Your task to perform on an android device: Open accessibility settings Image 0: 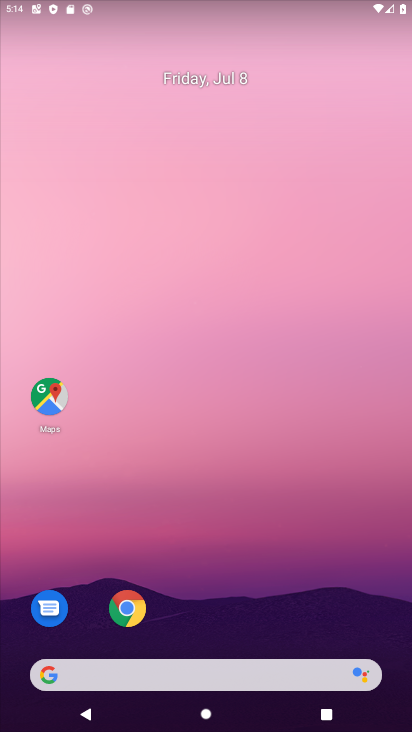
Step 0: drag from (192, 606) to (298, 46)
Your task to perform on an android device: Open accessibility settings Image 1: 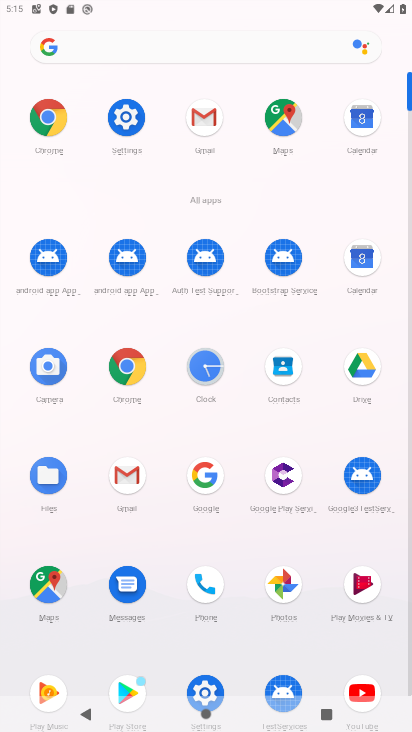
Step 1: click (133, 116)
Your task to perform on an android device: Open accessibility settings Image 2: 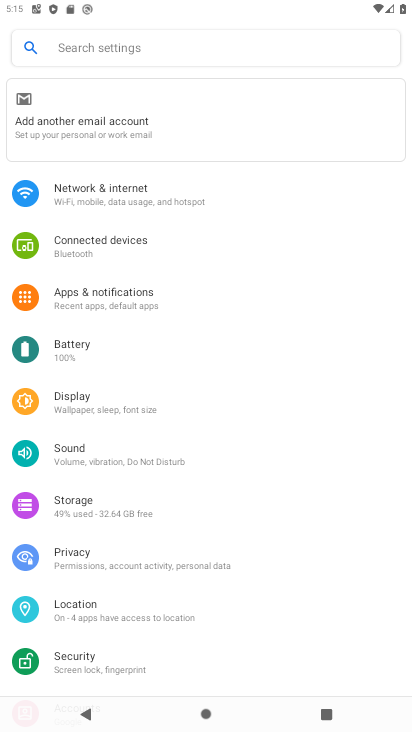
Step 2: drag from (117, 602) to (205, 47)
Your task to perform on an android device: Open accessibility settings Image 3: 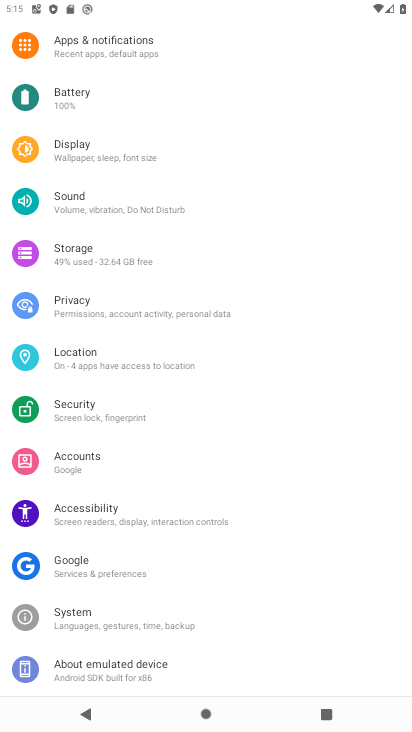
Step 3: click (74, 513)
Your task to perform on an android device: Open accessibility settings Image 4: 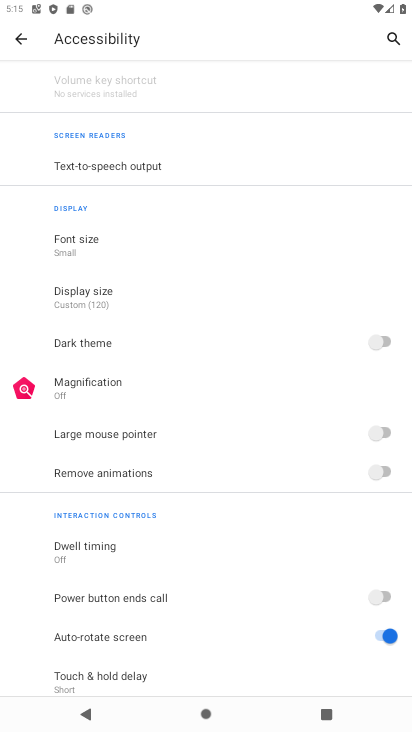
Step 4: task complete